Your task to perform on an android device: Open Yahoo.com Image 0: 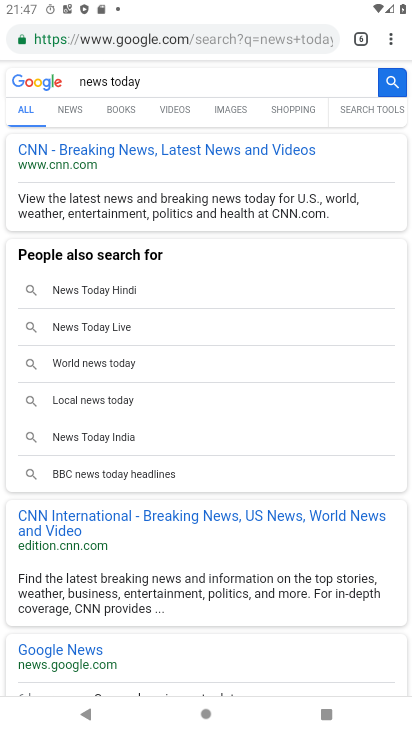
Step 0: press home button
Your task to perform on an android device: Open Yahoo.com Image 1: 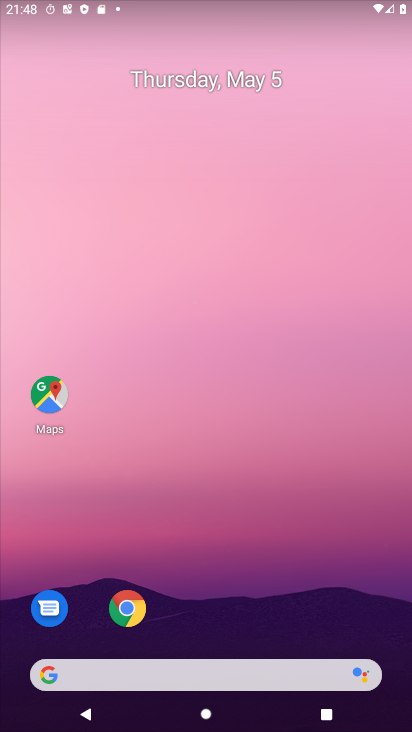
Step 1: drag from (224, 663) to (94, 13)
Your task to perform on an android device: Open Yahoo.com Image 2: 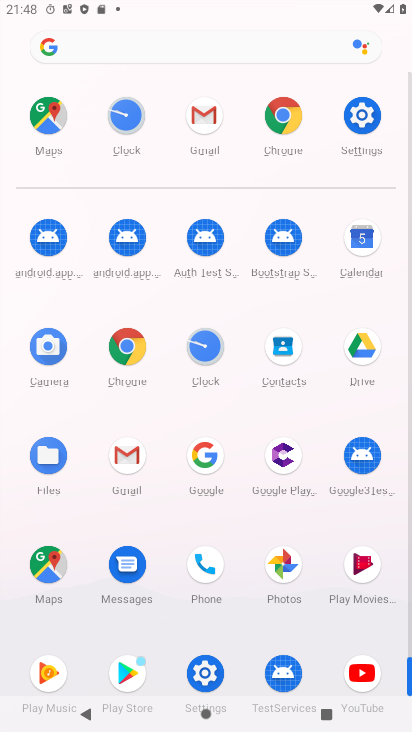
Step 2: click (123, 345)
Your task to perform on an android device: Open Yahoo.com Image 3: 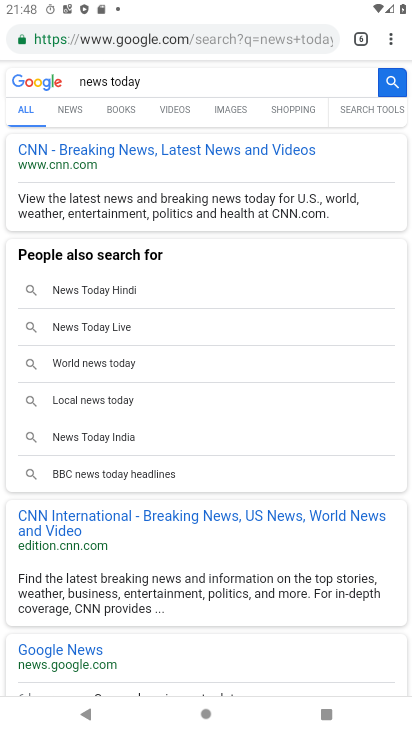
Step 3: click (198, 35)
Your task to perform on an android device: Open Yahoo.com Image 4: 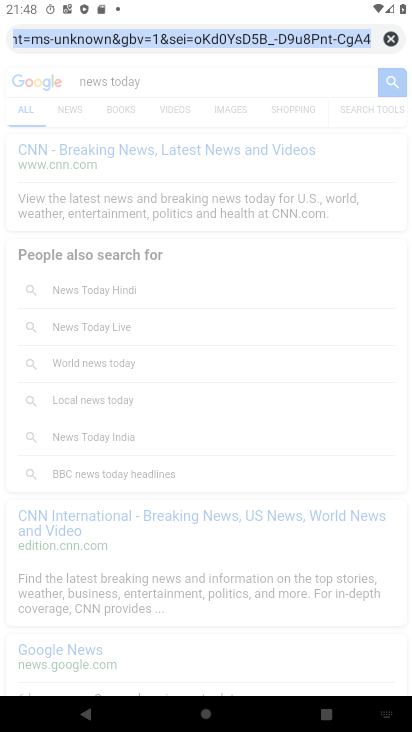
Step 4: click (389, 34)
Your task to perform on an android device: Open Yahoo.com Image 5: 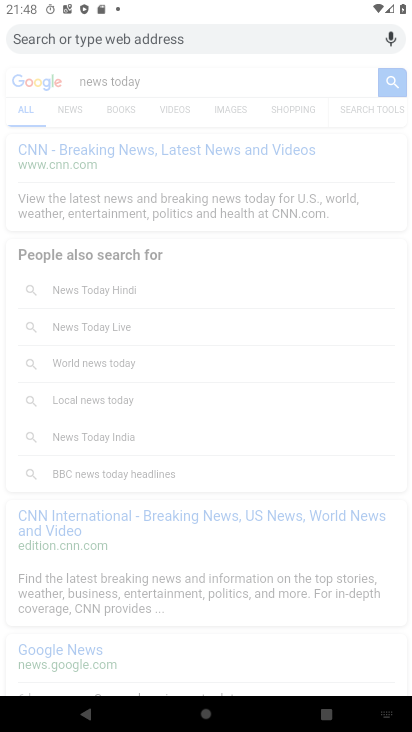
Step 5: type "yahoo.com"
Your task to perform on an android device: Open Yahoo.com Image 6: 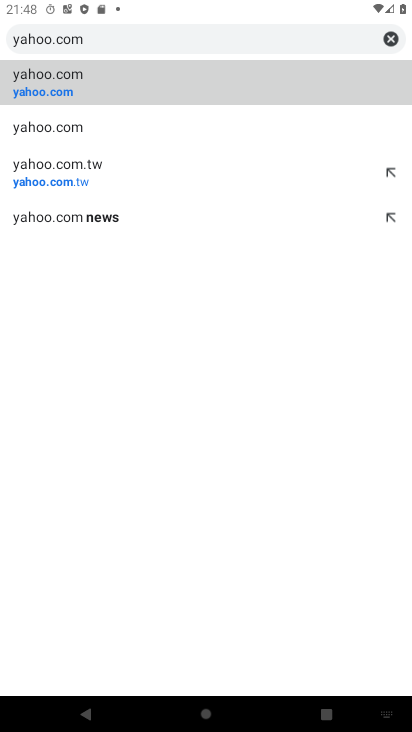
Step 6: click (350, 79)
Your task to perform on an android device: Open Yahoo.com Image 7: 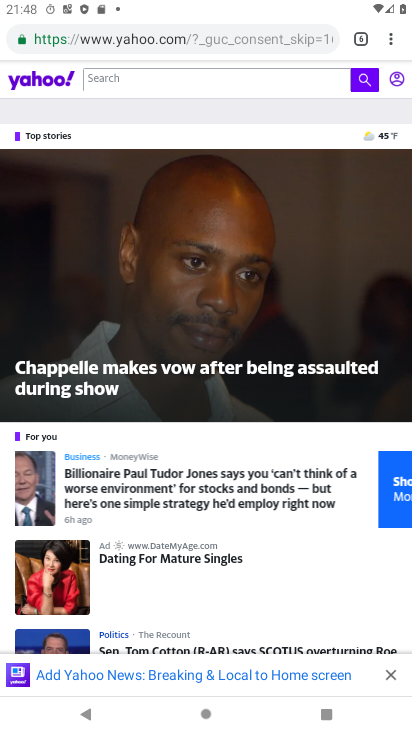
Step 7: task complete